Your task to perform on an android device: Go to notification settings Image 0: 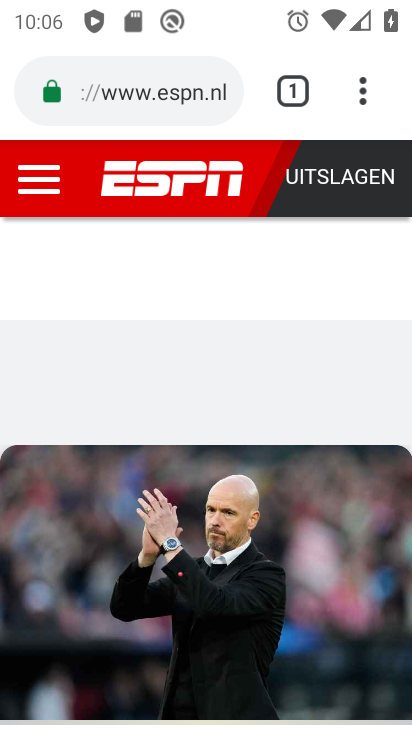
Step 0: press back button
Your task to perform on an android device: Go to notification settings Image 1: 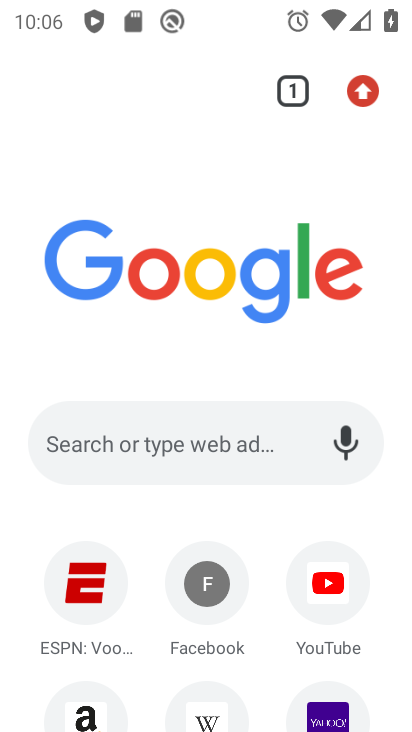
Step 1: press back button
Your task to perform on an android device: Go to notification settings Image 2: 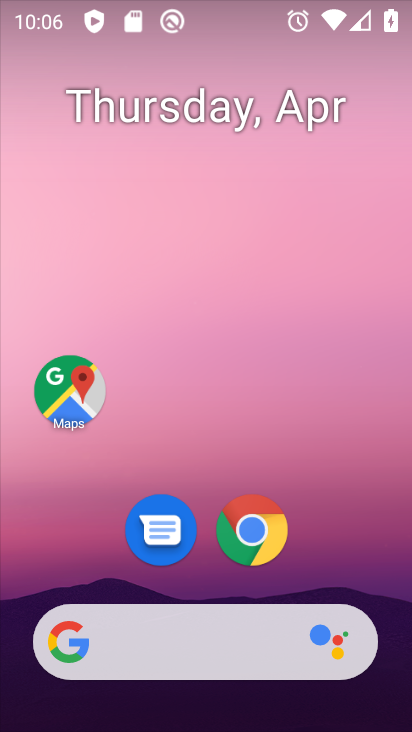
Step 2: drag from (119, 610) to (253, 86)
Your task to perform on an android device: Go to notification settings Image 3: 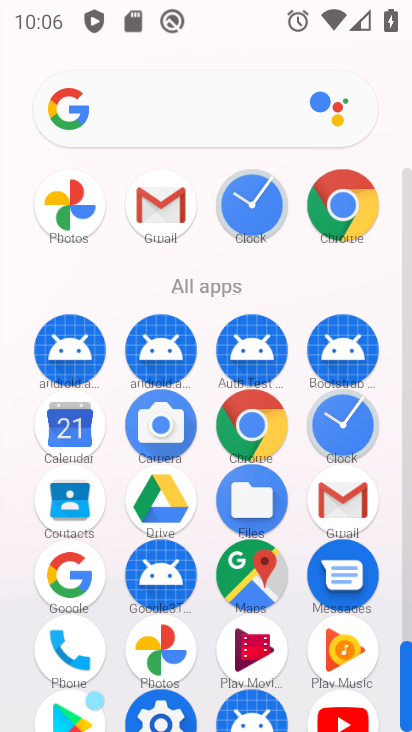
Step 3: drag from (208, 681) to (255, 442)
Your task to perform on an android device: Go to notification settings Image 4: 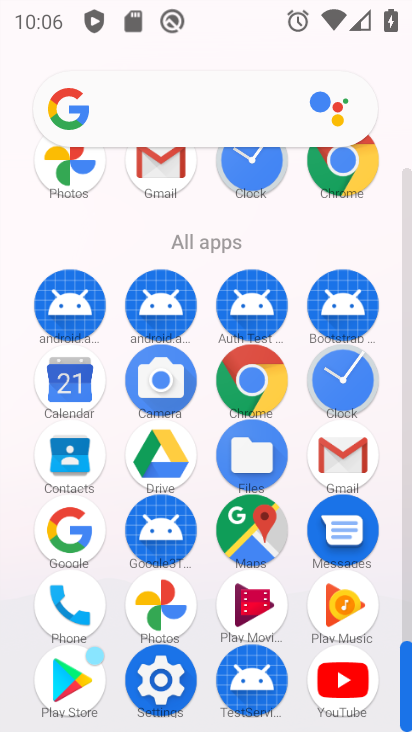
Step 4: click (173, 694)
Your task to perform on an android device: Go to notification settings Image 5: 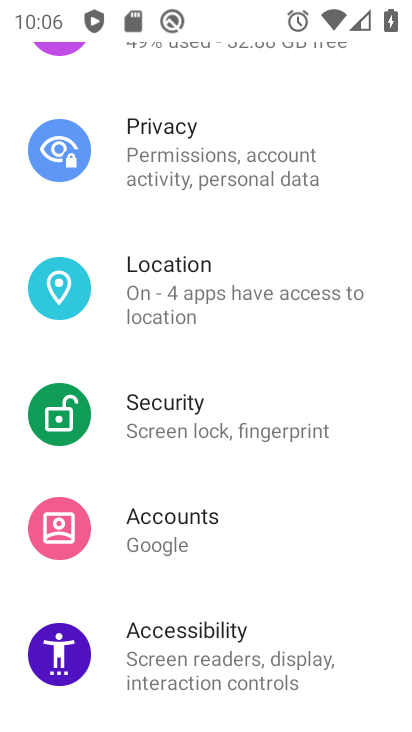
Step 5: drag from (263, 237) to (193, 605)
Your task to perform on an android device: Go to notification settings Image 6: 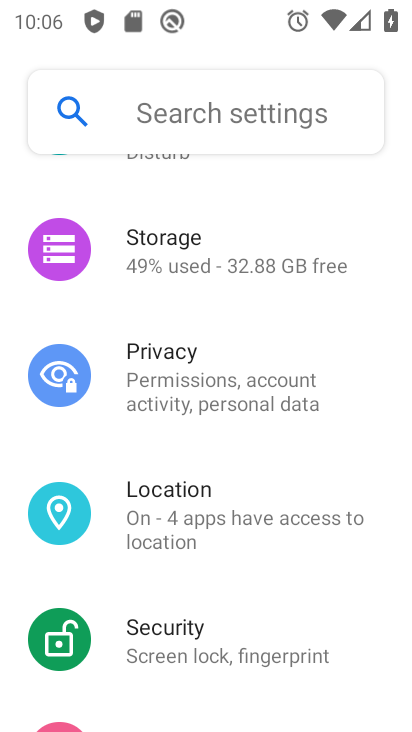
Step 6: drag from (215, 245) to (181, 605)
Your task to perform on an android device: Go to notification settings Image 7: 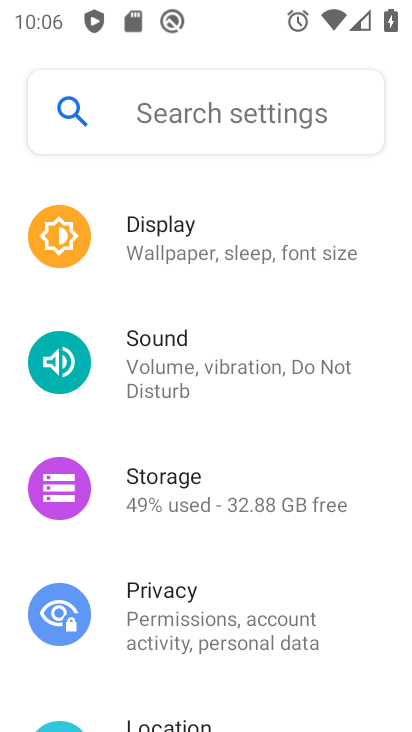
Step 7: drag from (282, 211) to (214, 553)
Your task to perform on an android device: Go to notification settings Image 8: 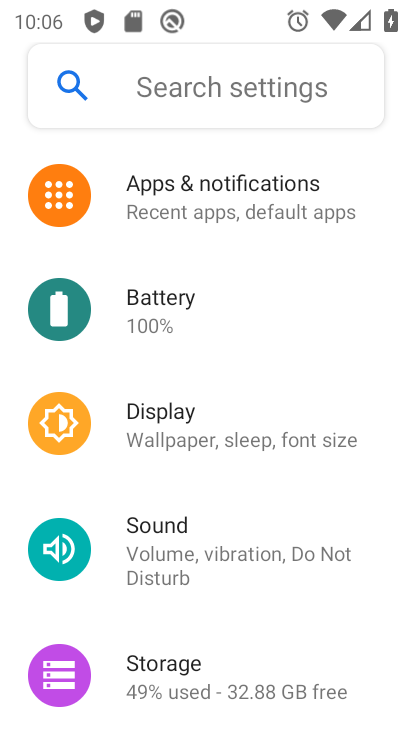
Step 8: click (287, 216)
Your task to perform on an android device: Go to notification settings Image 9: 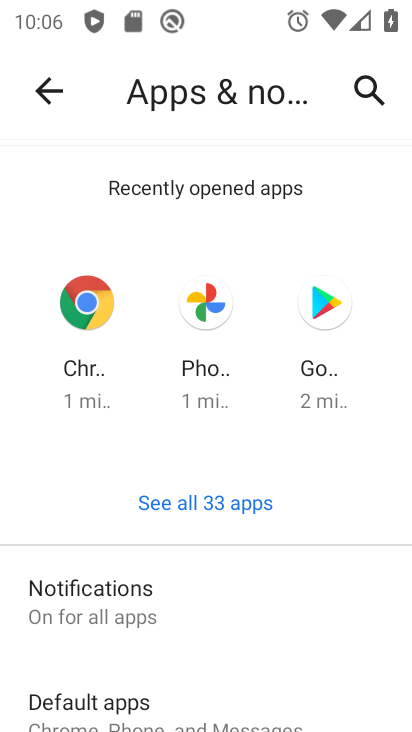
Step 9: click (272, 628)
Your task to perform on an android device: Go to notification settings Image 10: 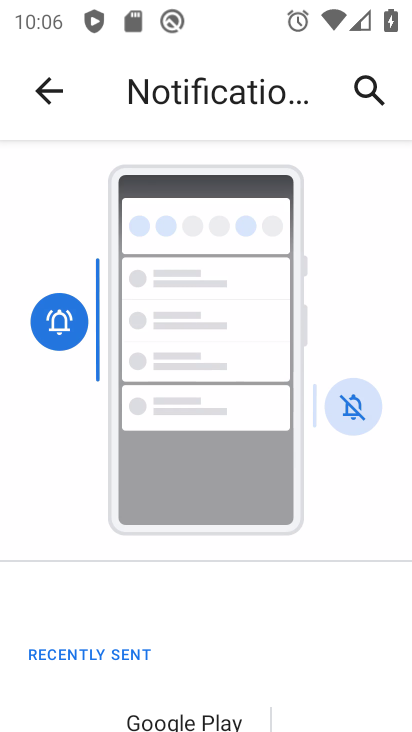
Step 10: task complete